Your task to perform on an android device: open chrome privacy settings Image 0: 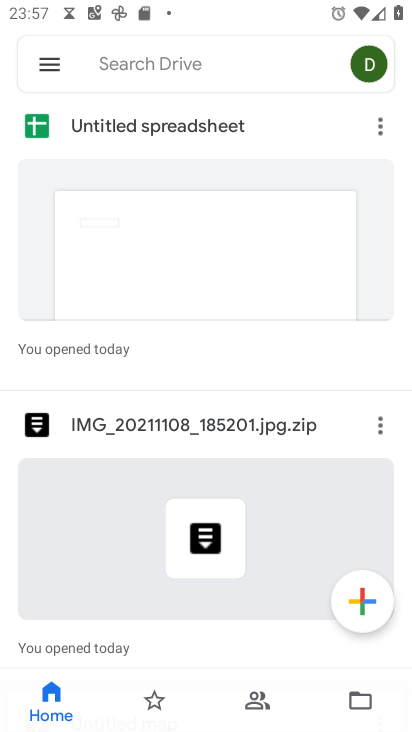
Step 0: press home button
Your task to perform on an android device: open chrome privacy settings Image 1: 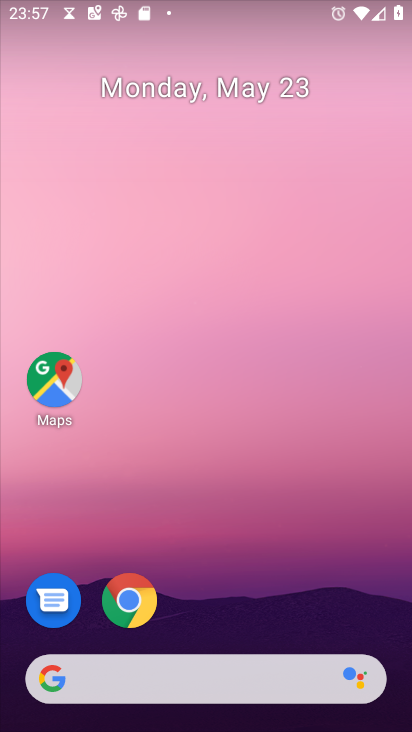
Step 1: click (127, 599)
Your task to perform on an android device: open chrome privacy settings Image 2: 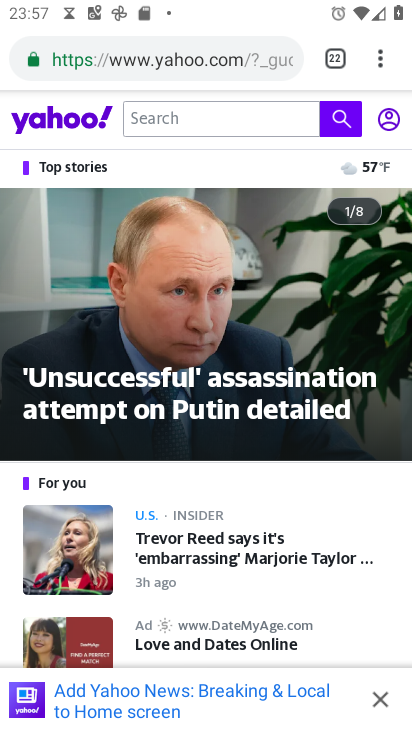
Step 2: click (379, 62)
Your task to perform on an android device: open chrome privacy settings Image 3: 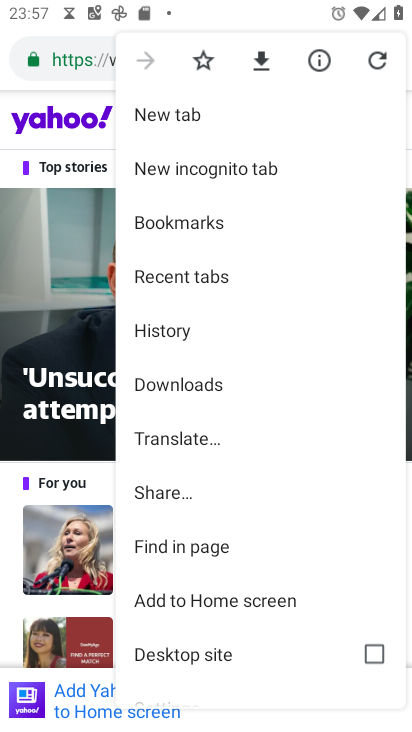
Step 3: drag from (203, 657) to (202, 318)
Your task to perform on an android device: open chrome privacy settings Image 4: 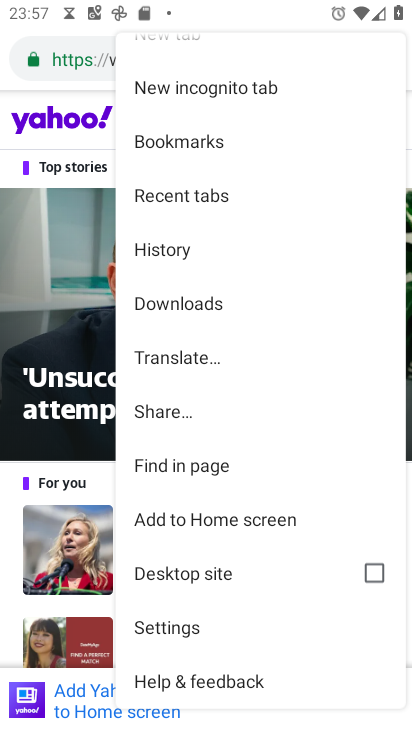
Step 4: click (188, 625)
Your task to perform on an android device: open chrome privacy settings Image 5: 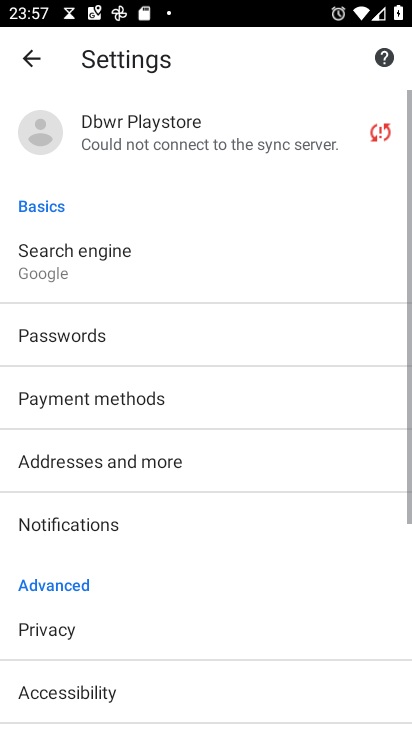
Step 5: task complete